Your task to perform on an android device: Look up the best rated coffee maker on Lowe's. Image 0: 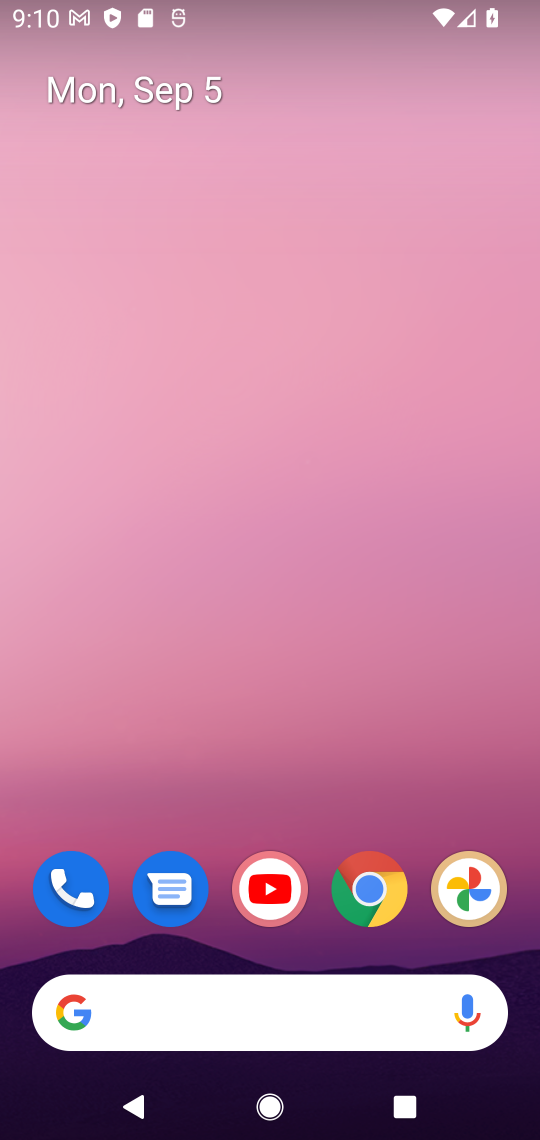
Step 0: click (244, 1006)
Your task to perform on an android device: Look up the best rated coffee maker on Lowe's. Image 1: 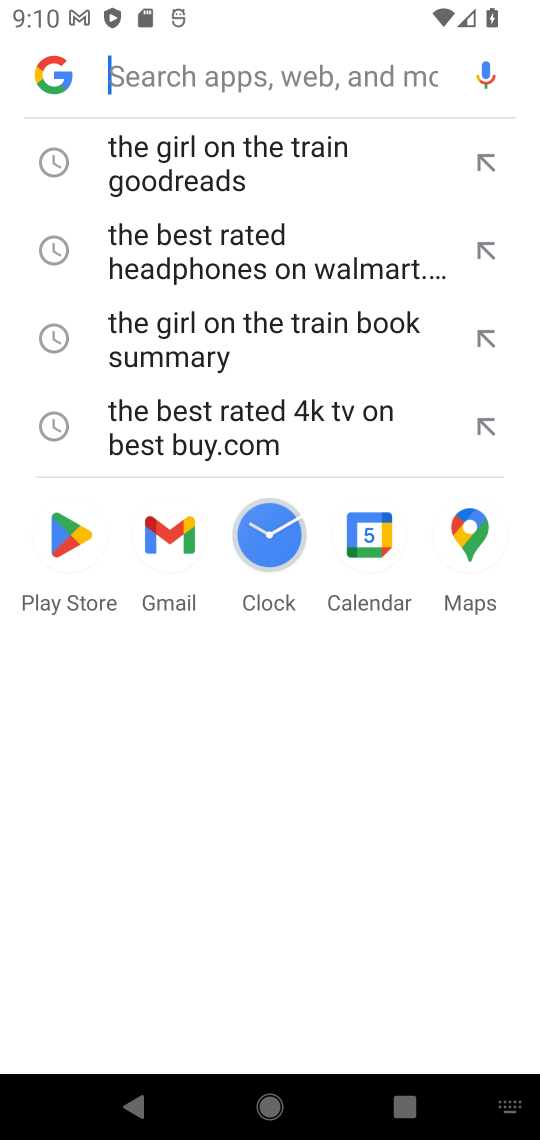
Step 1: type "the best rated coffee maker on Lowe's"
Your task to perform on an android device: Look up the best rated coffee maker on Lowe's. Image 2: 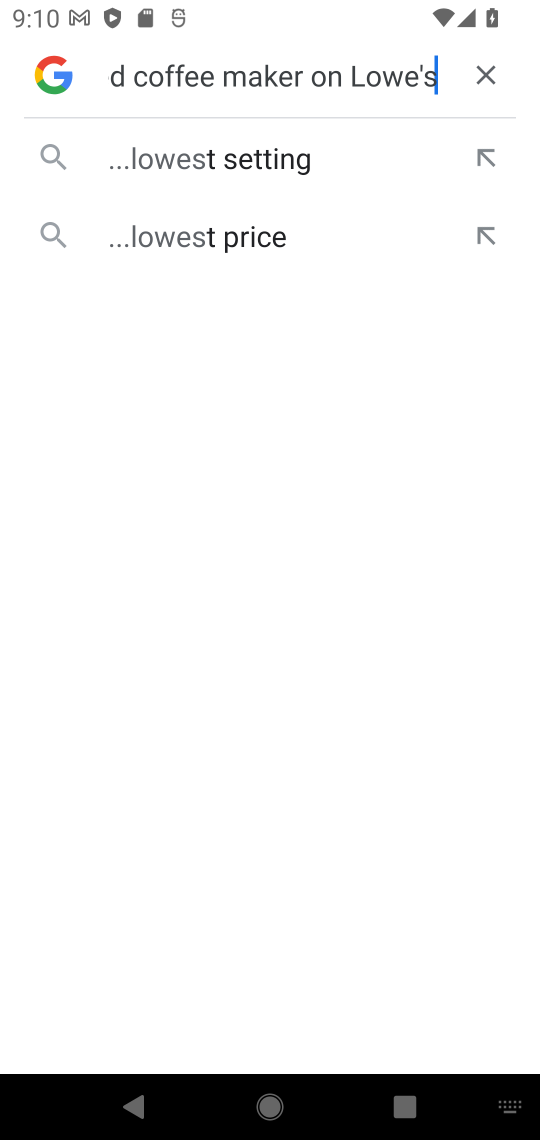
Step 2: click (475, 71)
Your task to perform on an android device: Look up the best rated coffee maker on Lowe's. Image 3: 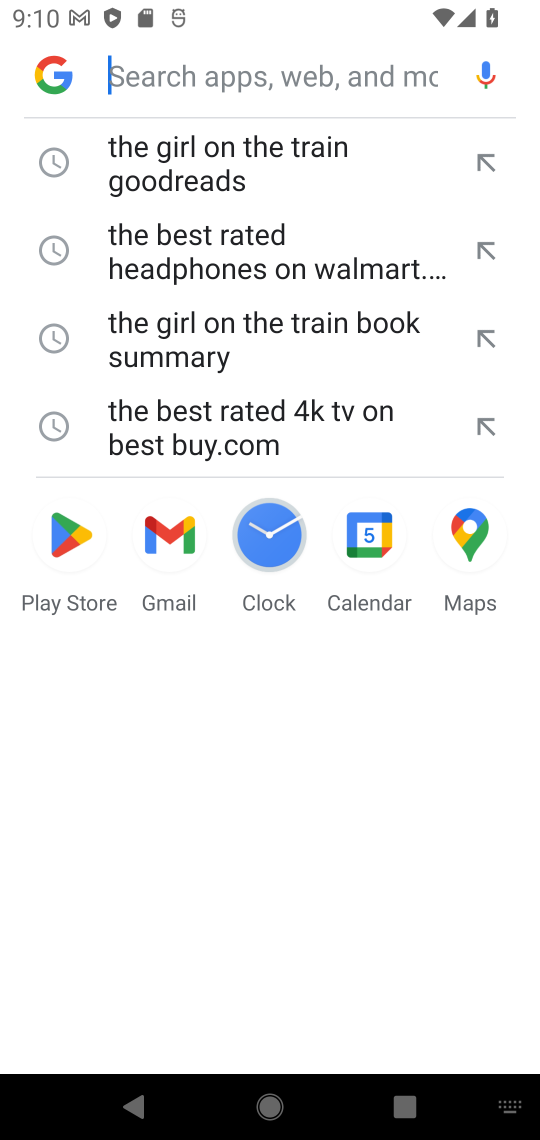
Step 3: type "Look up the best rated coffee maker"
Your task to perform on an android device: Look up the best rated coffee maker on Lowe's. Image 4: 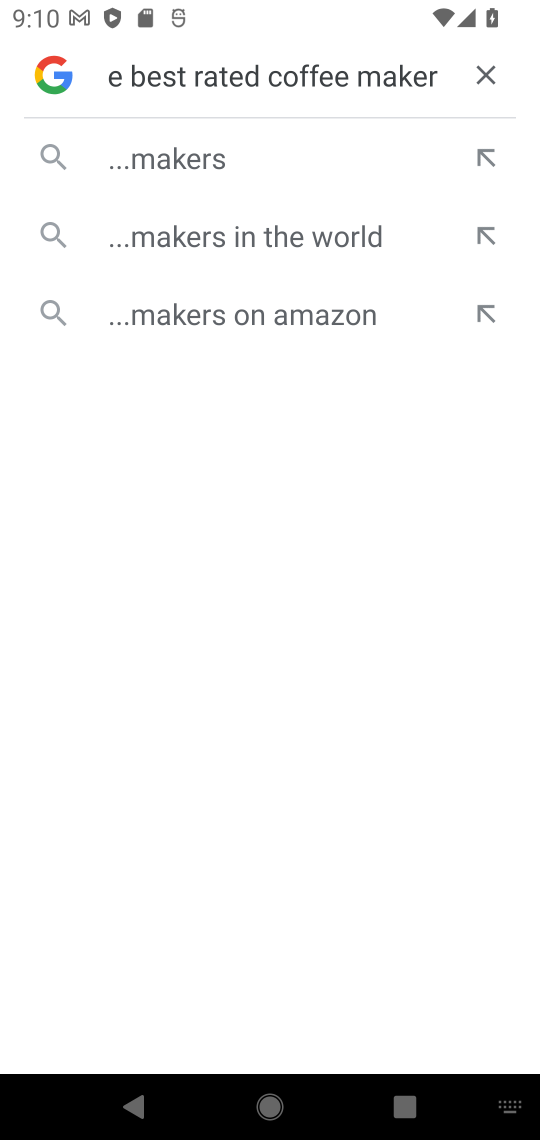
Step 4: click (231, 179)
Your task to perform on an android device: Look up the best rated coffee maker on Lowe's. Image 5: 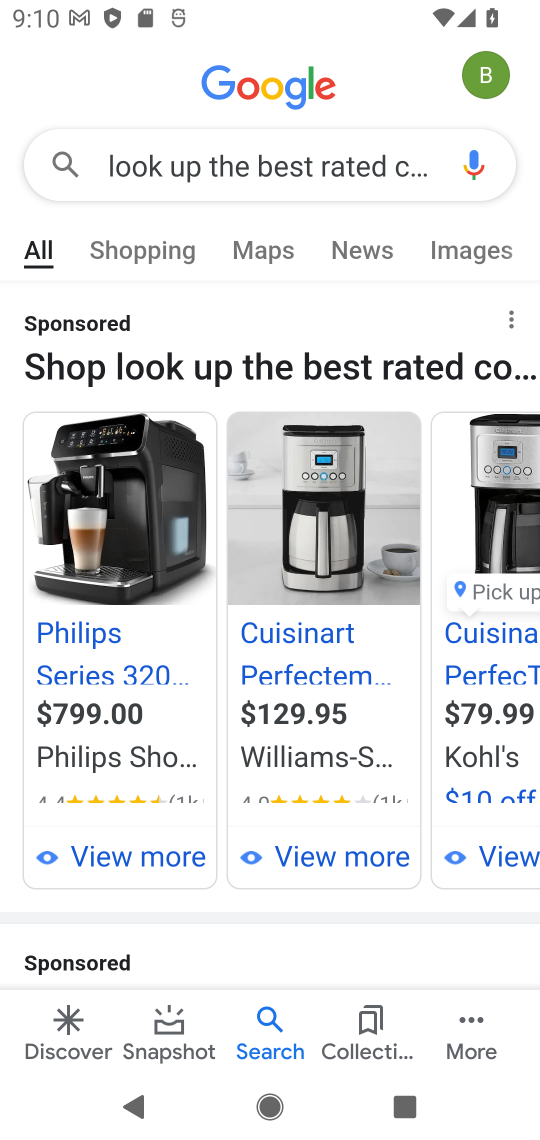
Step 5: task complete